Your task to perform on an android device: see tabs open on other devices in the chrome app Image 0: 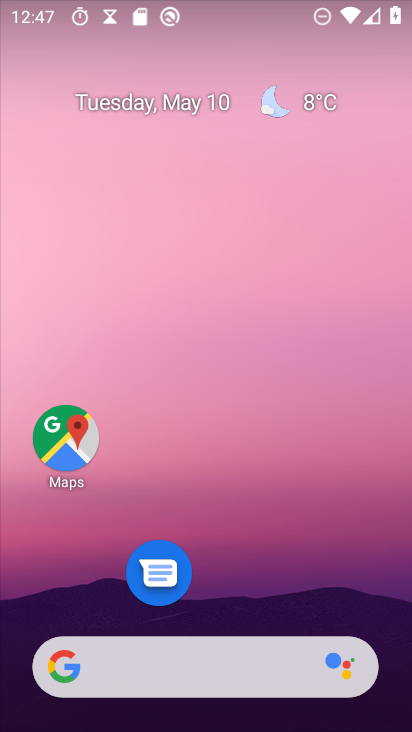
Step 0: drag from (271, 610) to (368, 17)
Your task to perform on an android device: see tabs open on other devices in the chrome app Image 1: 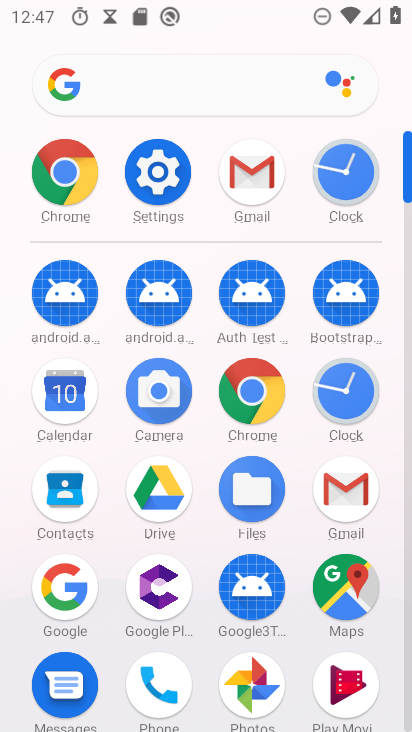
Step 1: click (243, 411)
Your task to perform on an android device: see tabs open on other devices in the chrome app Image 2: 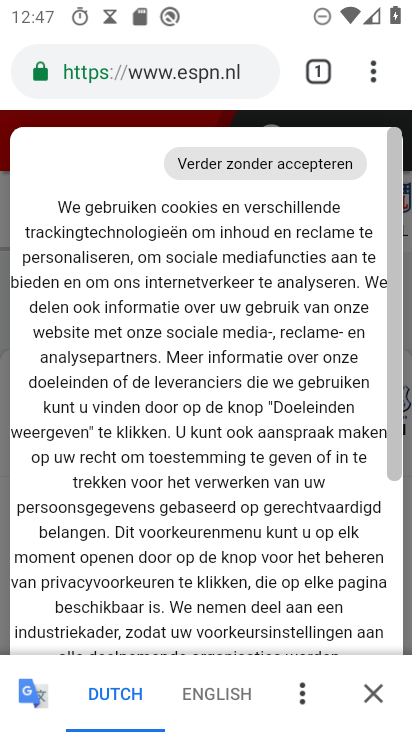
Step 2: click (378, 84)
Your task to perform on an android device: see tabs open on other devices in the chrome app Image 3: 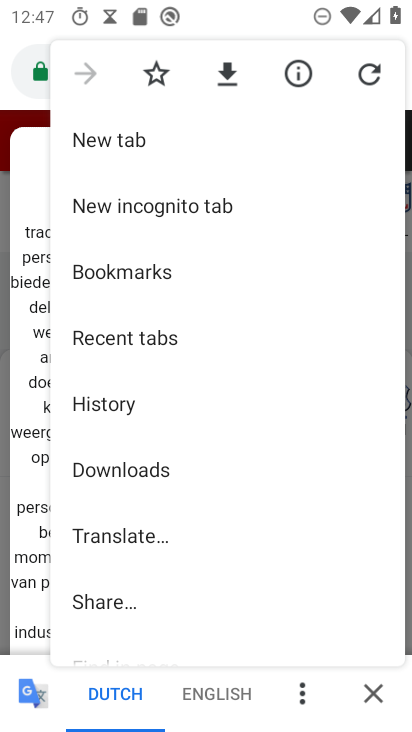
Step 3: click (145, 338)
Your task to perform on an android device: see tabs open on other devices in the chrome app Image 4: 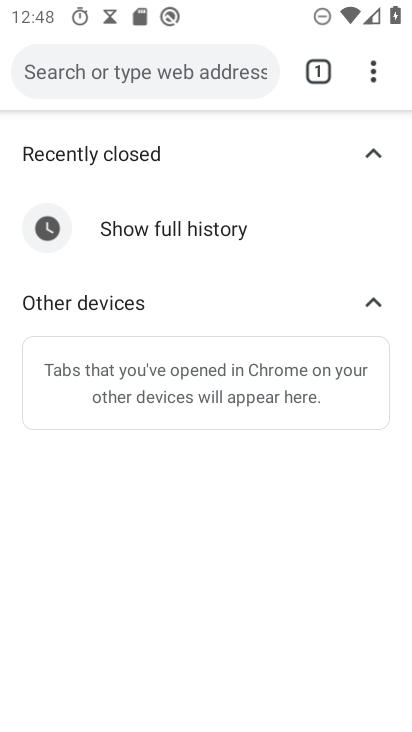
Step 4: task complete